Your task to perform on an android device: turn off notifications in google photos Image 0: 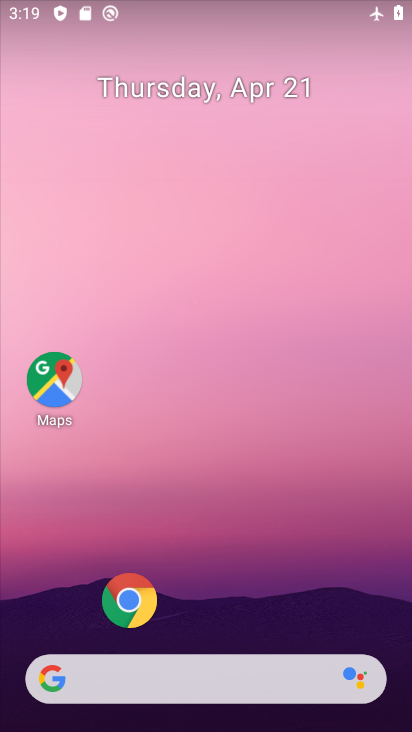
Step 0: drag from (268, 613) to (266, 276)
Your task to perform on an android device: turn off notifications in google photos Image 1: 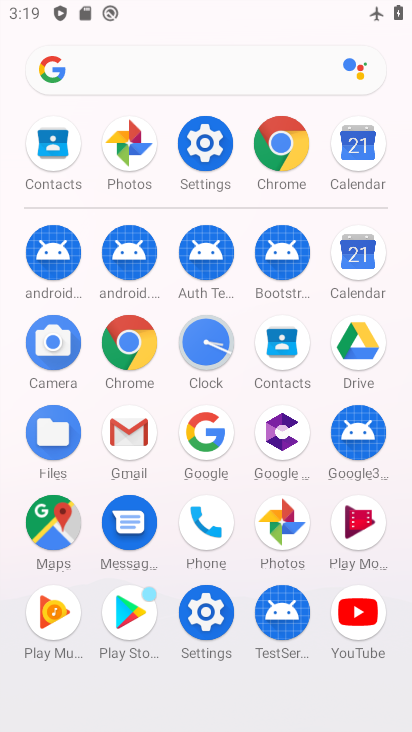
Step 1: click (140, 163)
Your task to perform on an android device: turn off notifications in google photos Image 2: 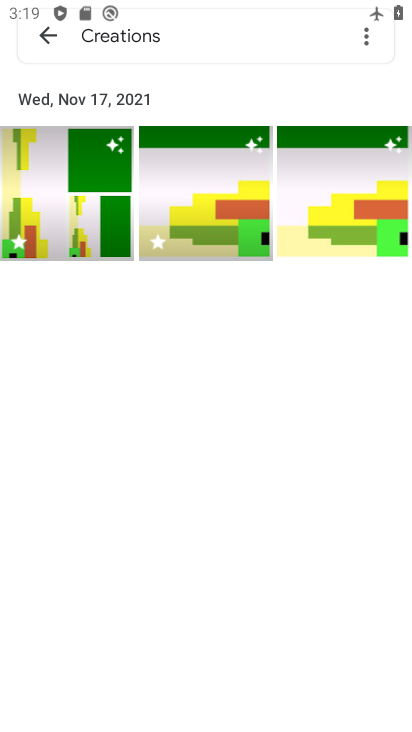
Step 2: click (41, 43)
Your task to perform on an android device: turn off notifications in google photos Image 3: 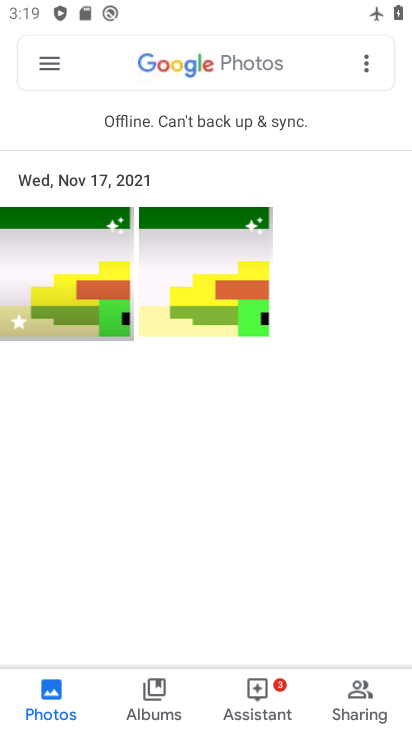
Step 3: click (48, 71)
Your task to perform on an android device: turn off notifications in google photos Image 4: 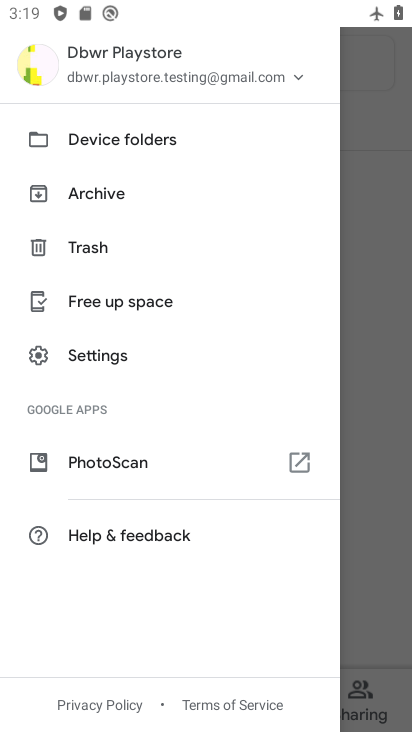
Step 4: click (96, 361)
Your task to perform on an android device: turn off notifications in google photos Image 5: 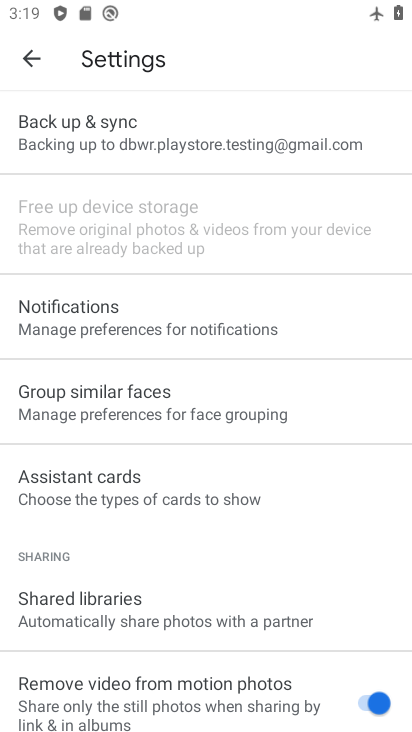
Step 5: click (140, 319)
Your task to perform on an android device: turn off notifications in google photos Image 6: 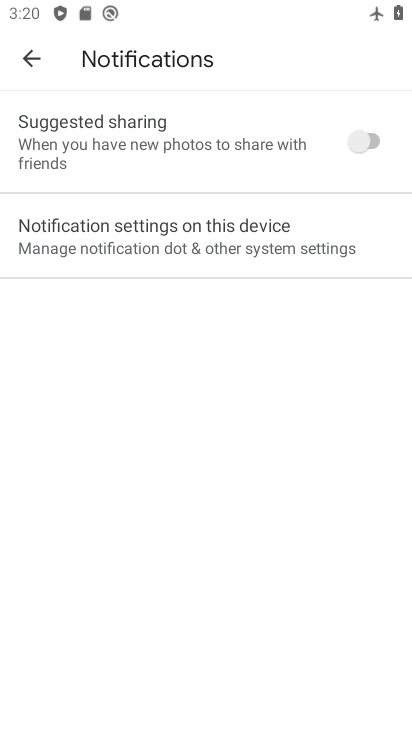
Step 6: click (139, 252)
Your task to perform on an android device: turn off notifications in google photos Image 7: 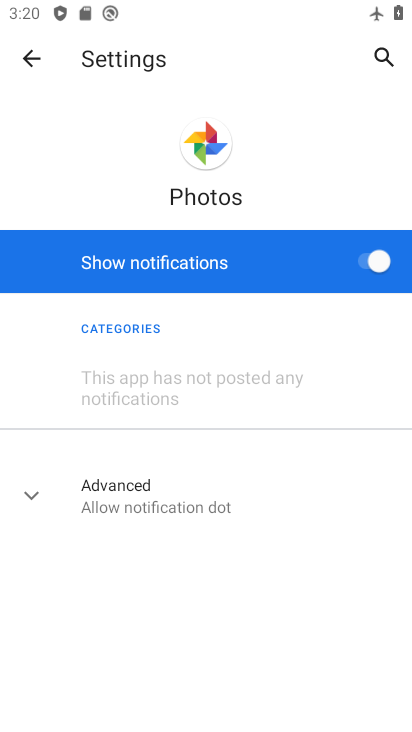
Step 7: click (369, 265)
Your task to perform on an android device: turn off notifications in google photos Image 8: 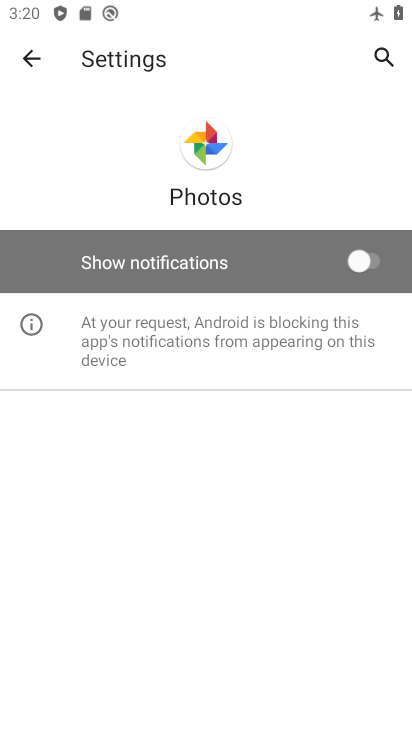
Step 8: task complete